Your task to perform on an android device: Open Youtube and go to the subscriptions tab Image 0: 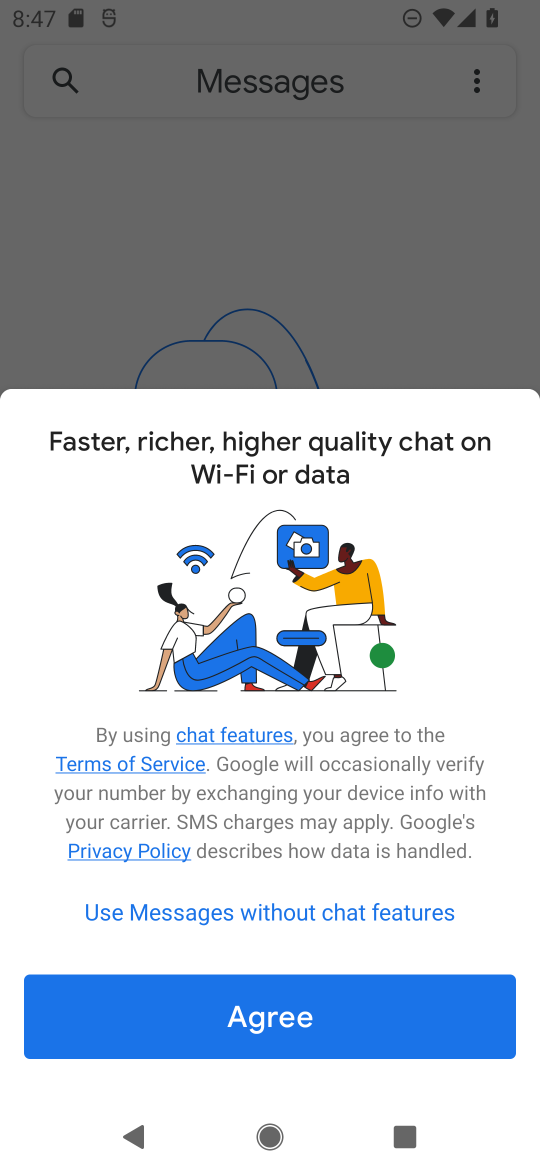
Step 0: press home button
Your task to perform on an android device: Open Youtube and go to the subscriptions tab Image 1: 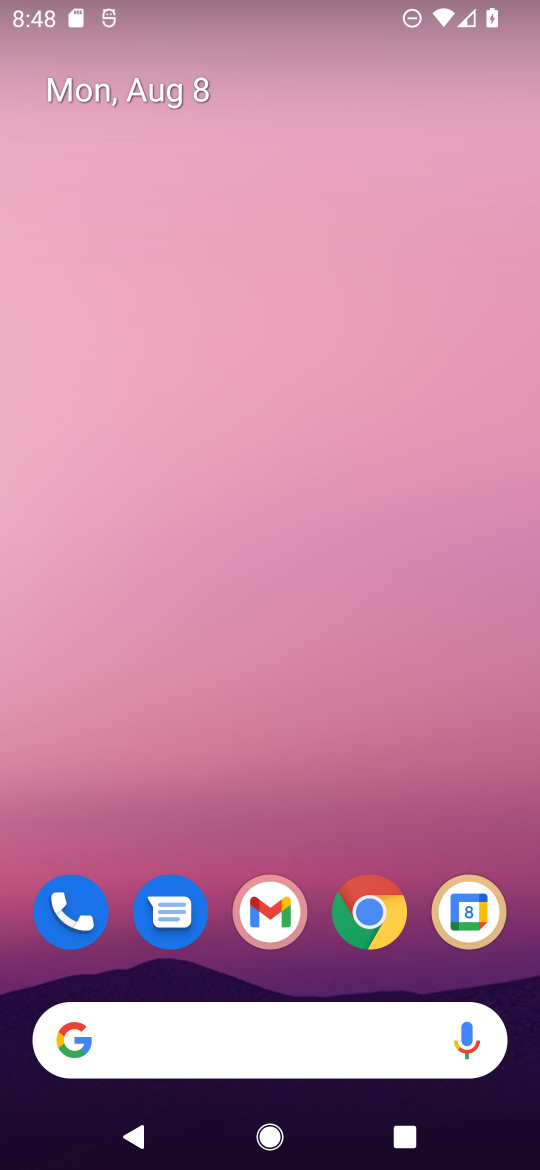
Step 1: drag from (436, 969) to (241, 2)
Your task to perform on an android device: Open Youtube and go to the subscriptions tab Image 2: 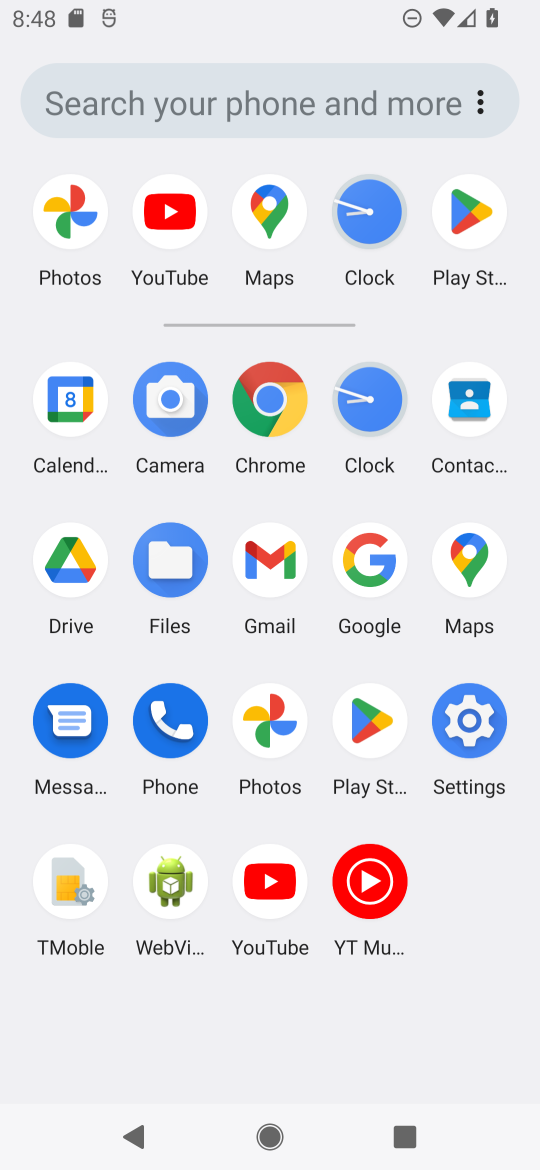
Step 2: click (267, 869)
Your task to perform on an android device: Open Youtube and go to the subscriptions tab Image 3: 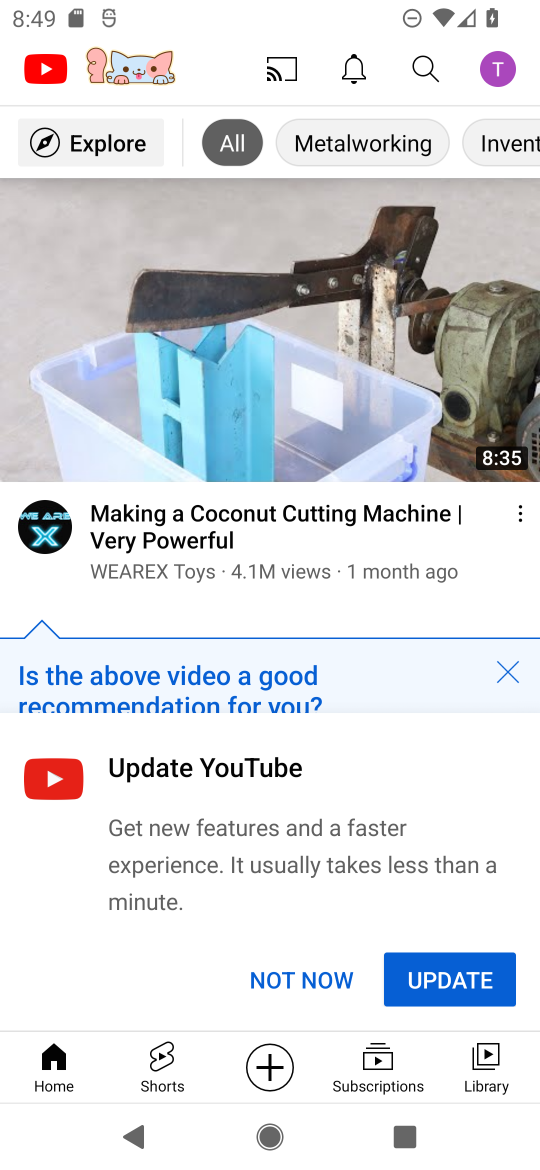
Step 3: click (396, 1079)
Your task to perform on an android device: Open Youtube and go to the subscriptions tab Image 4: 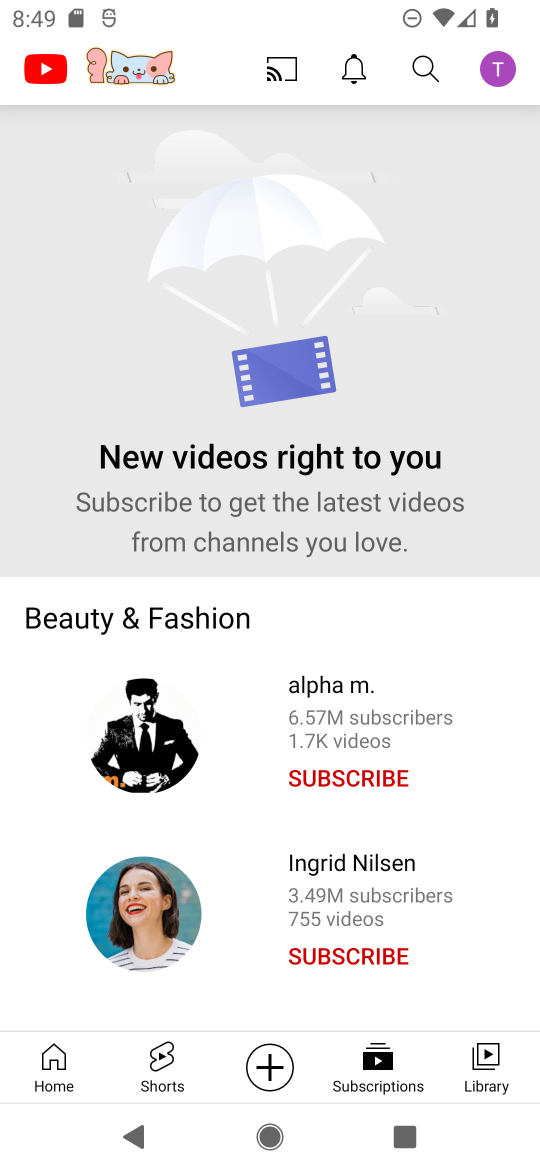
Step 4: task complete